Your task to perform on an android device: refresh tabs in the chrome app Image 0: 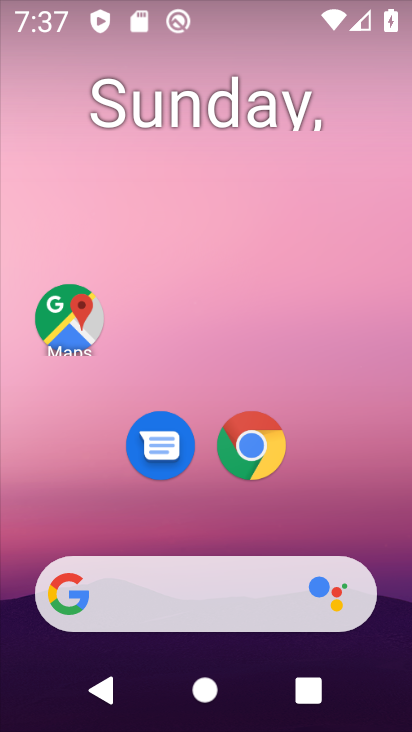
Step 0: drag from (203, 174) to (123, 547)
Your task to perform on an android device: refresh tabs in the chrome app Image 1: 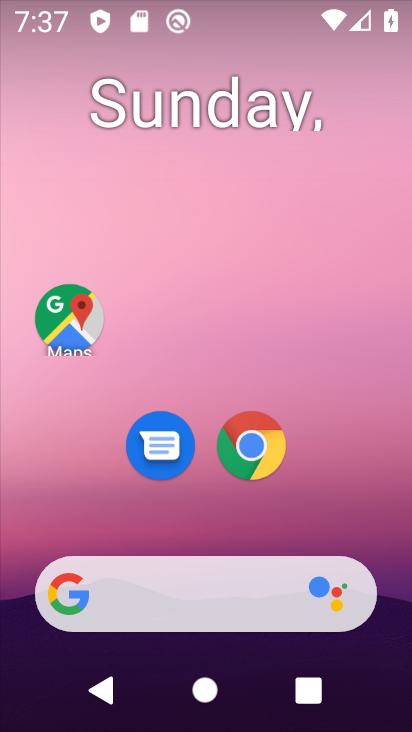
Step 1: click (258, 445)
Your task to perform on an android device: refresh tabs in the chrome app Image 2: 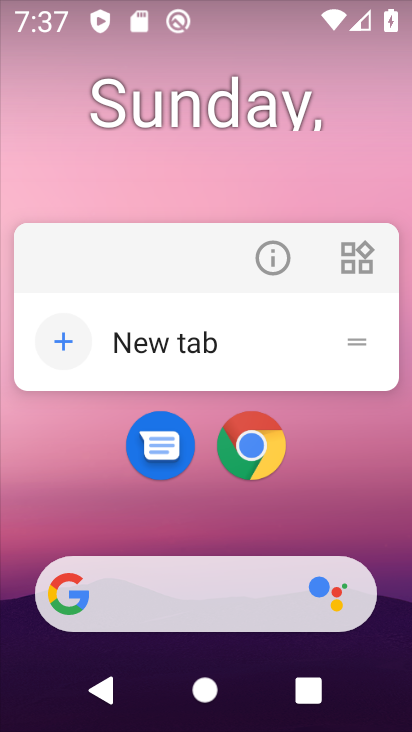
Step 2: click (254, 257)
Your task to perform on an android device: refresh tabs in the chrome app Image 3: 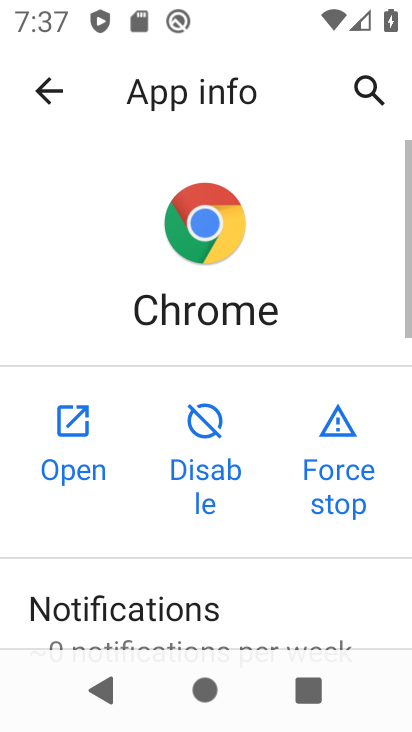
Step 3: click (71, 421)
Your task to perform on an android device: refresh tabs in the chrome app Image 4: 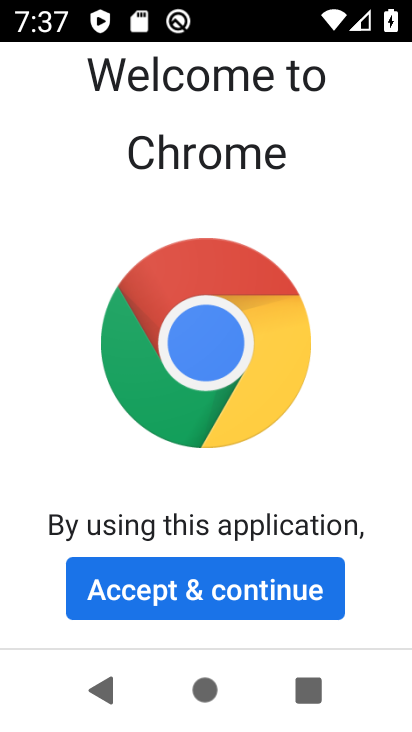
Step 4: click (228, 551)
Your task to perform on an android device: refresh tabs in the chrome app Image 5: 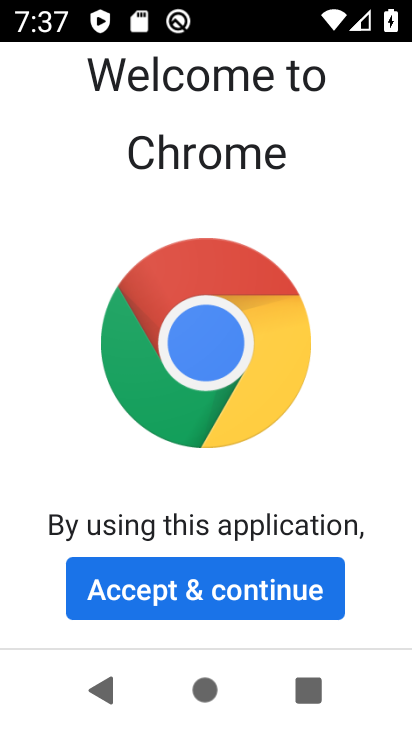
Step 5: click (170, 603)
Your task to perform on an android device: refresh tabs in the chrome app Image 6: 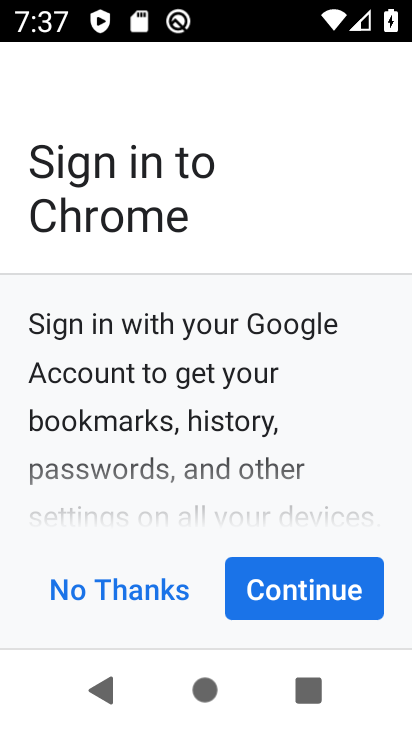
Step 6: click (286, 593)
Your task to perform on an android device: refresh tabs in the chrome app Image 7: 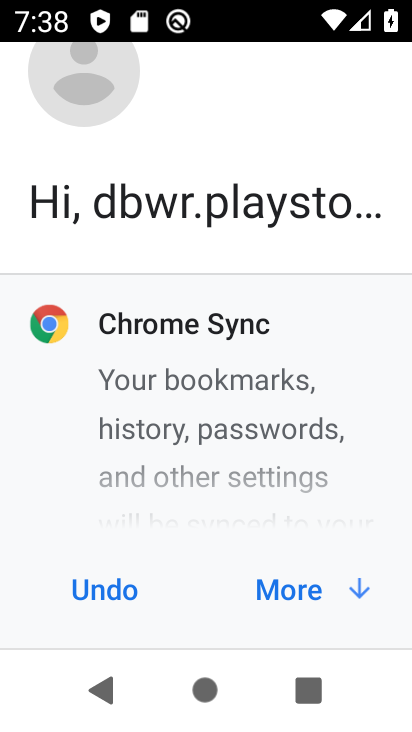
Step 7: click (272, 587)
Your task to perform on an android device: refresh tabs in the chrome app Image 8: 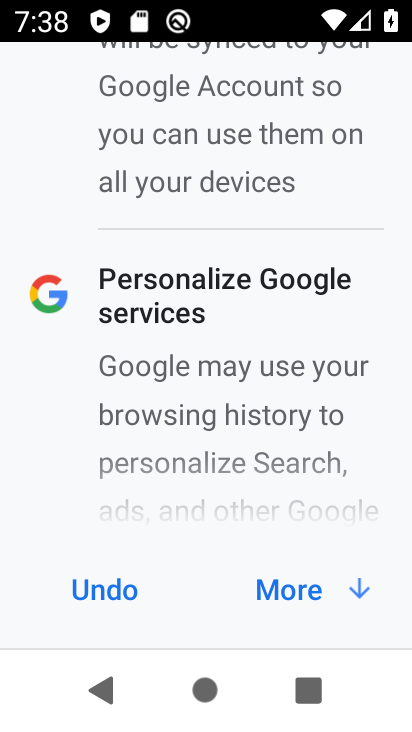
Step 8: click (273, 588)
Your task to perform on an android device: refresh tabs in the chrome app Image 9: 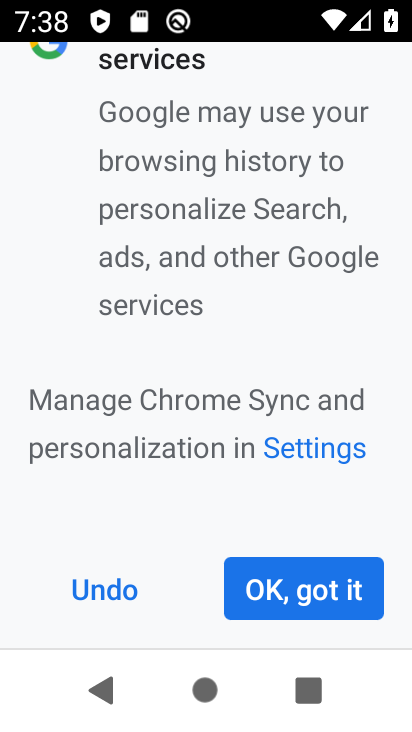
Step 9: click (272, 590)
Your task to perform on an android device: refresh tabs in the chrome app Image 10: 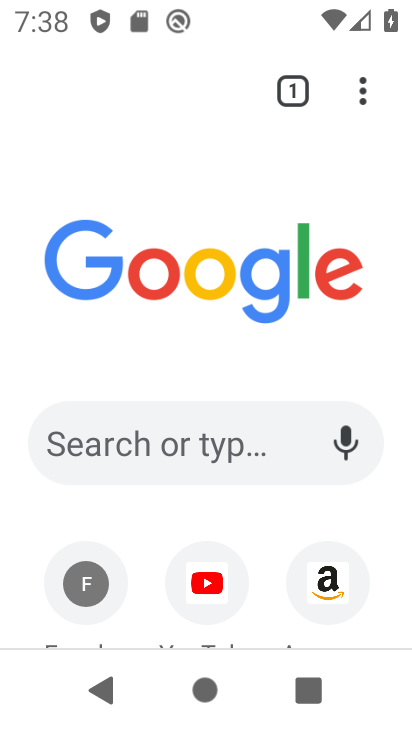
Step 10: click (367, 80)
Your task to perform on an android device: refresh tabs in the chrome app Image 11: 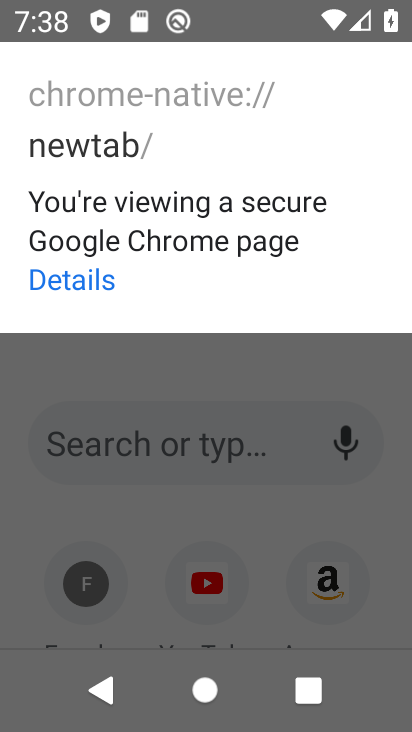
Step 11: click (38, 292)
Your task to perform on an android device: refresh tabs in the chrome app Image 12: 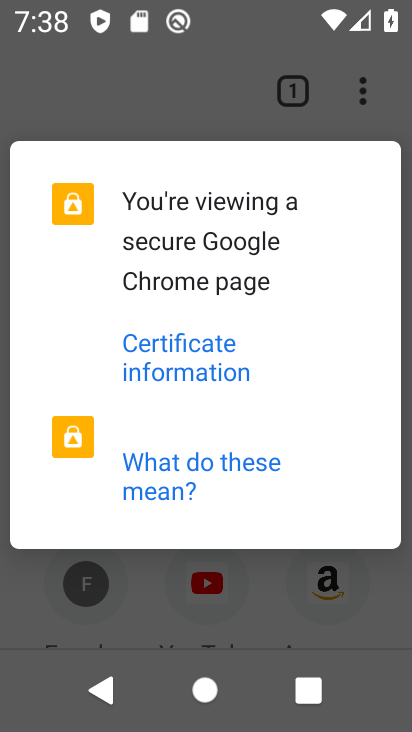
Step 12: press back button
Your task to perform on an android device: refresh tabs in the chrome app Image 13: 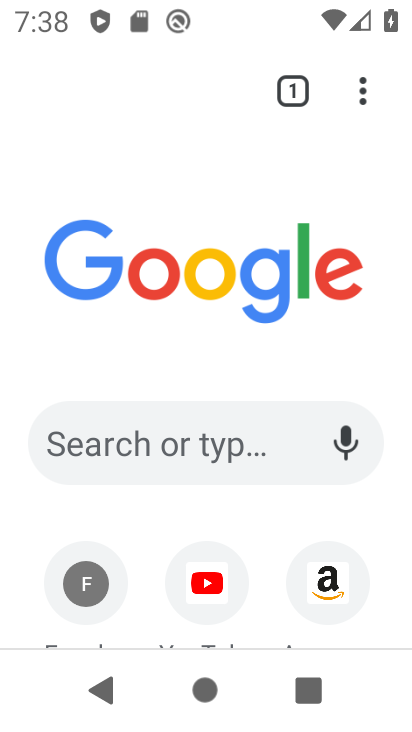
Step 13: click (363, 96)
Your task to perform on an android device: refresh tabs in the chrome app Image 14: 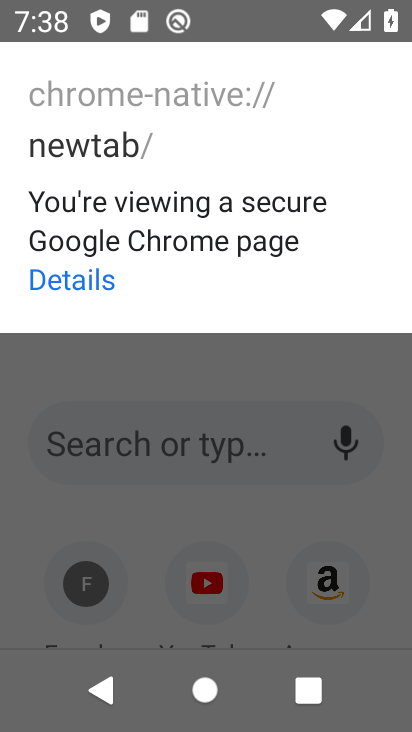
Step 14: task complete